Your task to perform on an android device: delete a single message in the gmail app Image 0: 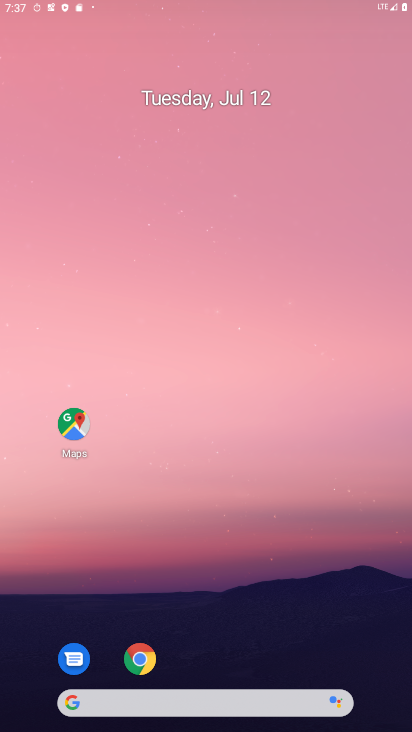
Step 0: drag from (383, 671) to (227, 56)
Your task to perform on an android device: delete a single message in the gmail app Image 1: 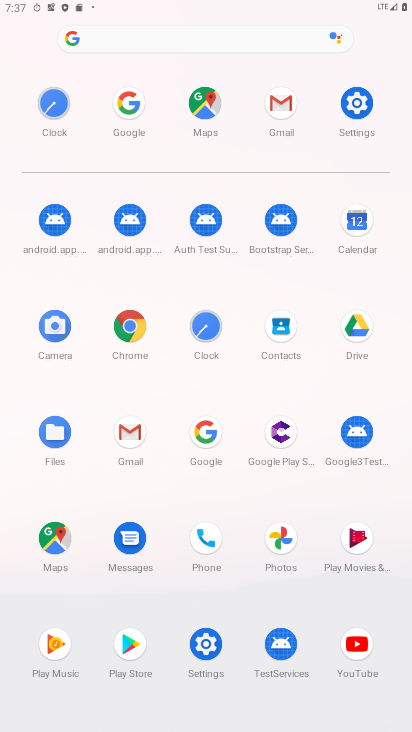
Step 1: click (282, 124)
Your task to perform on an android device: delete a single message in the gmail app Image 2: 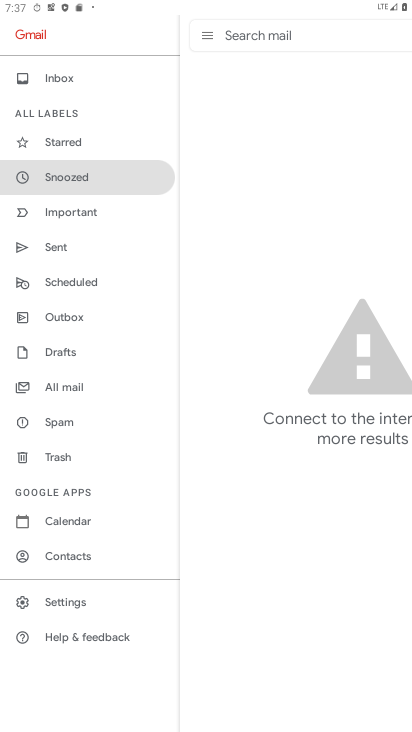
Step 2: click (46, 69)
Your task to perform on an android device: delete a single message in the gmail app Image 3: 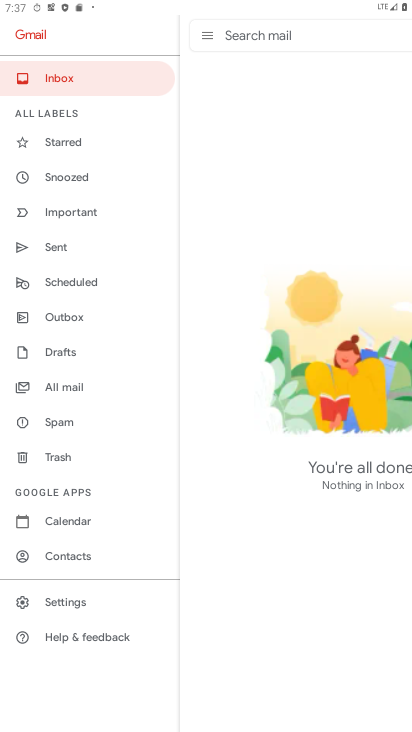
Step 3: task complete